Your task to perform on an android device: Open Google Chrome Image 0: 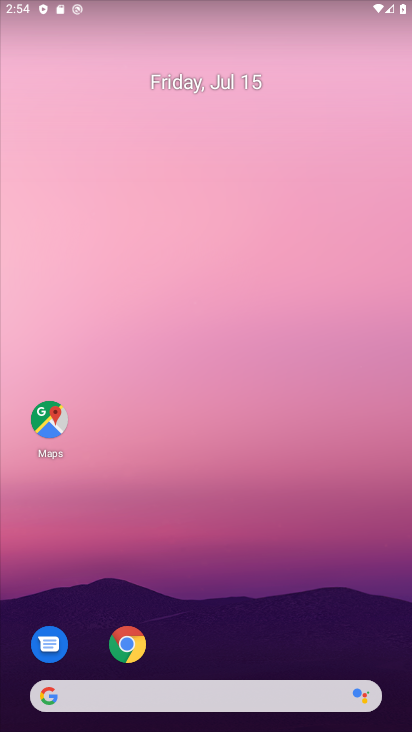
Step 0: drag from (317, 663) to (327, 2)
Your task to perform on an android device: Open Google Chrome Image 1: 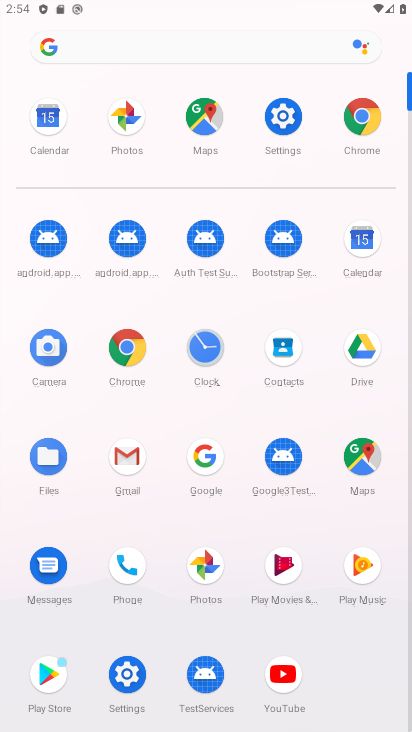
Step 1: click (136, 353)
Your task to perform on an android device: Open Google Chrome Image 2: 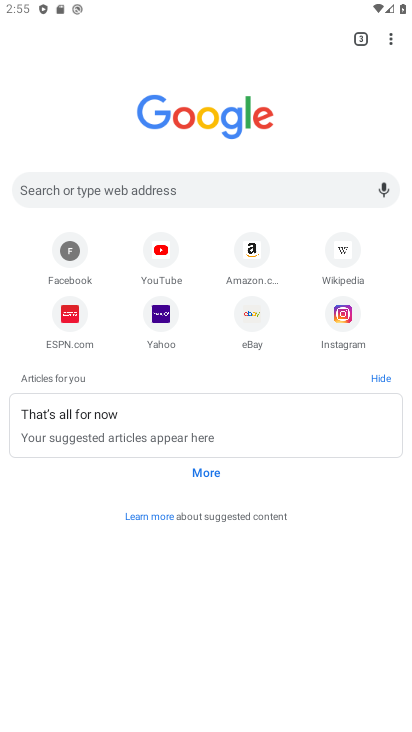
Step 2: task complete